Your task to perform on an android device: Go to Google Image 0: 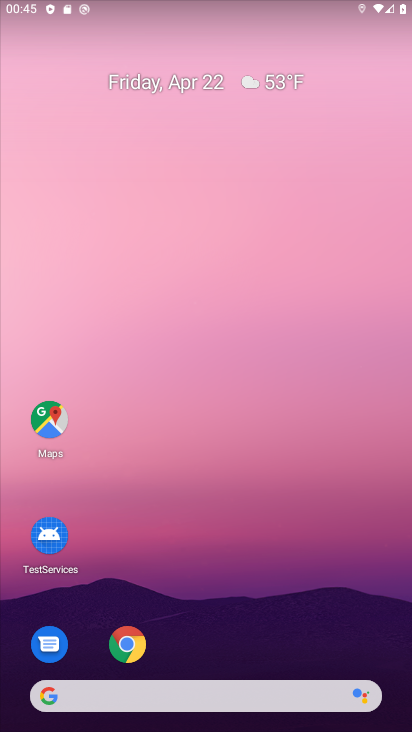
Step 0: drag from (233, 533) to (228, 141)
Your task to perform on an android device: Go to Google Image 1: 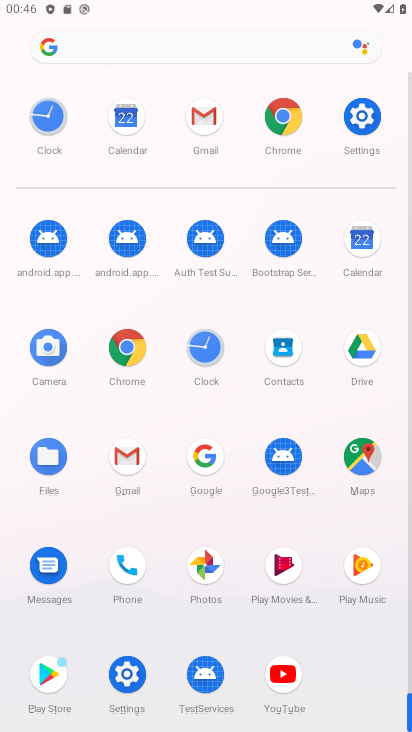
Step 1: click (205, 462)
Your task to perform on an android device: Go to Google Image 2: 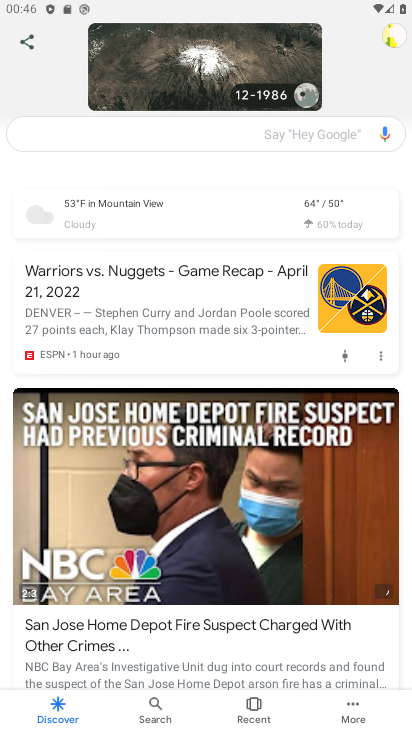
Step 2: task complete